Your task to perform on an android device: change the upload size in google photos Image 0: 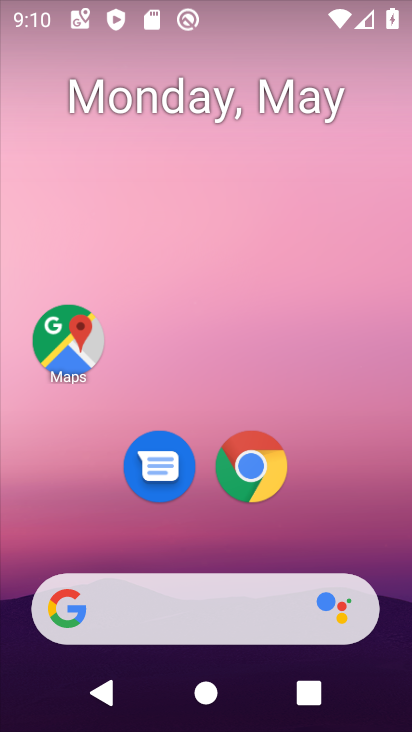
Step 0: drag from (337, 528) to (306, 90)
Your task to perform on an android device: change the upload size in google photos Image 1: 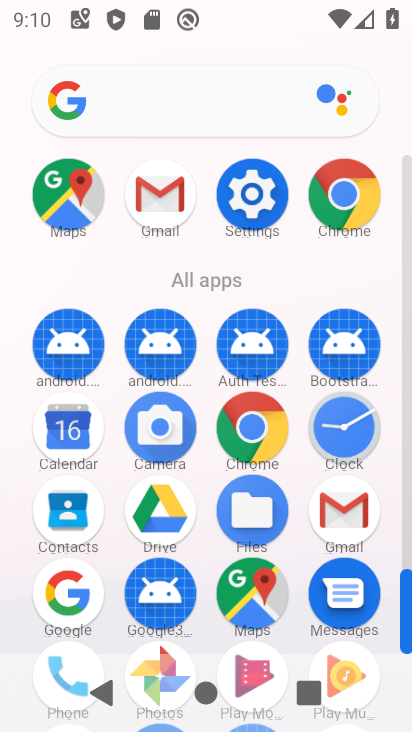
Step 1: drag from (294, 284) to (286, 45)
Your task to perform on an android device: change the upload size in google photos Image 2: 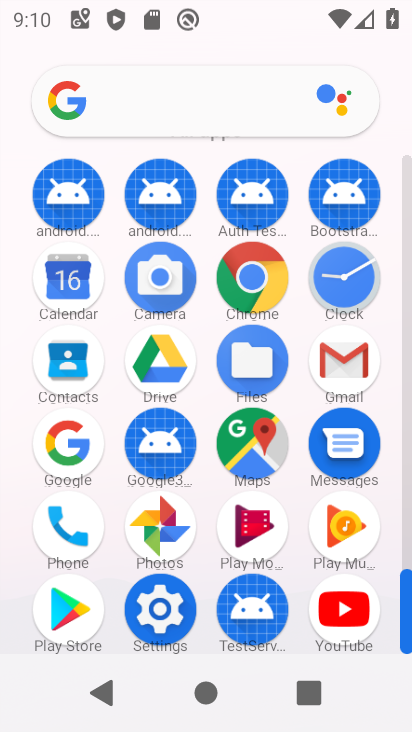
Step 2: click (164, 540)
Your task to perform on an android device: change the upload size in google photos Image 3: 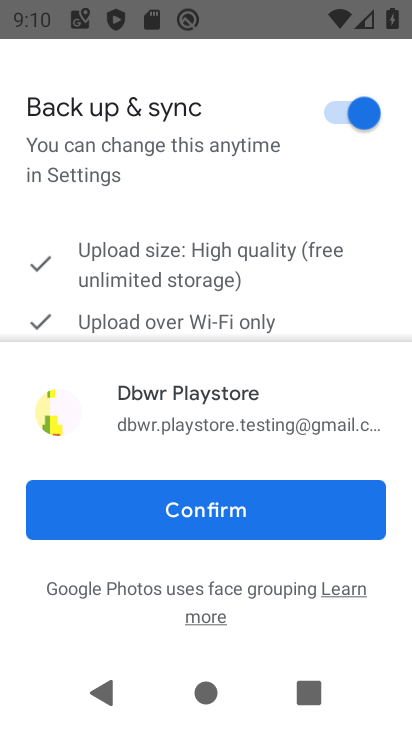
Step 3: click (306, 514)
Your task to perform on an android device: change the upload size in google photos Image 4: 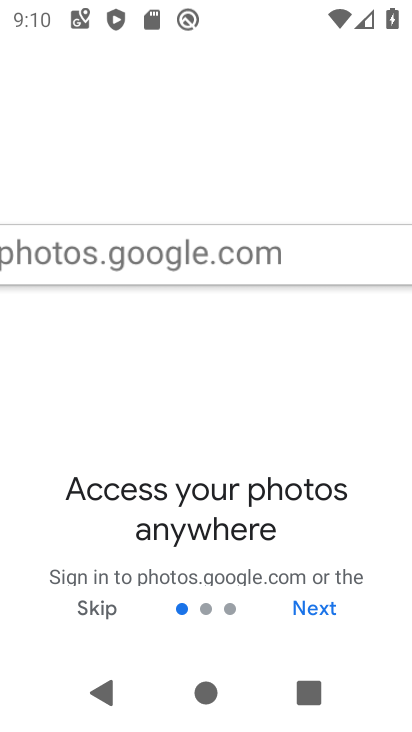
Step 4: click (301, 607)
Your task to perform on an android device: change the upload size in google photos Image 5: 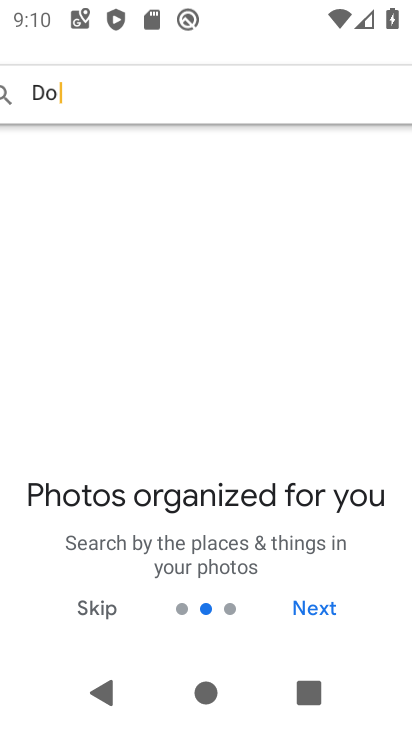
Step 5: click (301, 607)
Your task to perform on an android device: change the upload size in google photos Image 6: 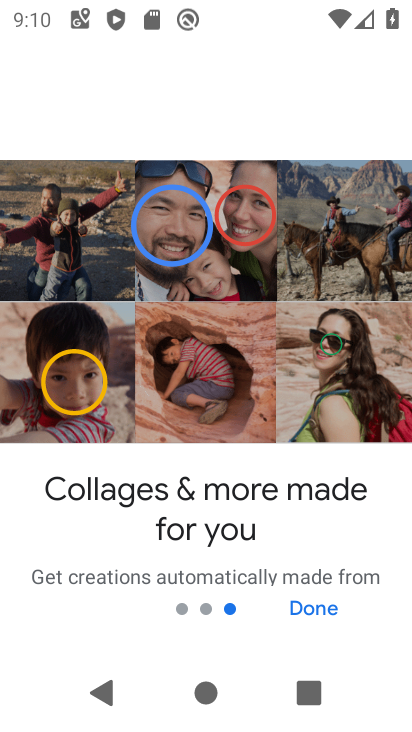
Step 6: click (301, 607)
Your task to perform on an android device: change the upload size in google photos Image 7: 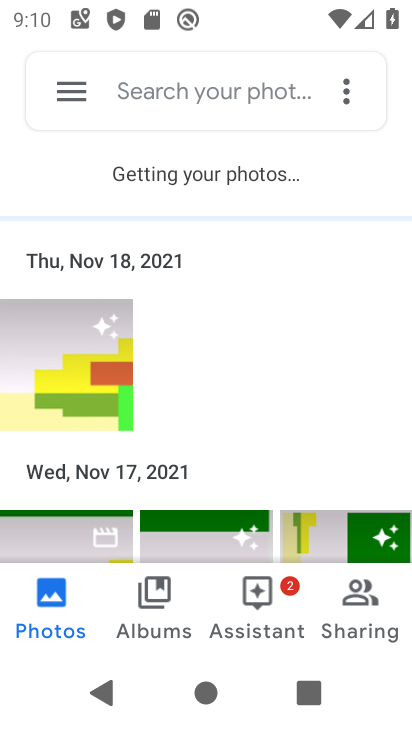
Step 7: click (349, 89)
Your task to perform on an android device: change the upload size in google photos Image 8: 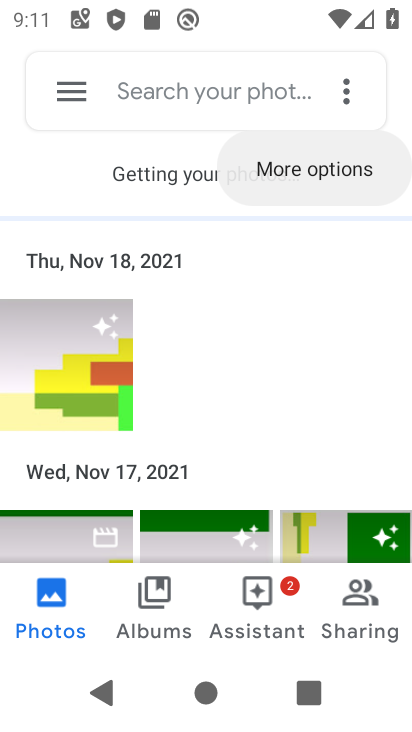
Step 8: click (349, 89)
Your task to perform on an android device: change the upload size in google photos Image 9: 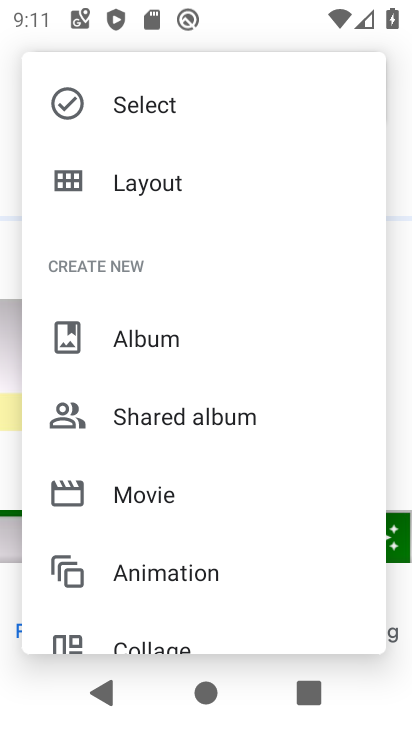
Step 9: click (397, 195)
Your task to perform on an android device: change the upload size in google photos Image 10: 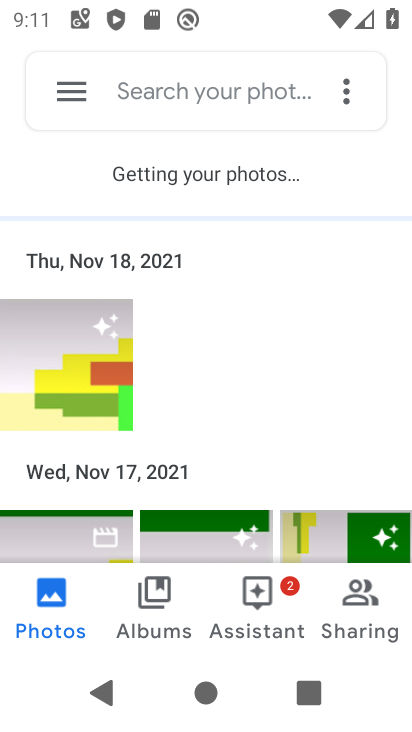
Step 10: click (63, 101)
Your task to perform on an android device: change the upload size in google photos Image 11: 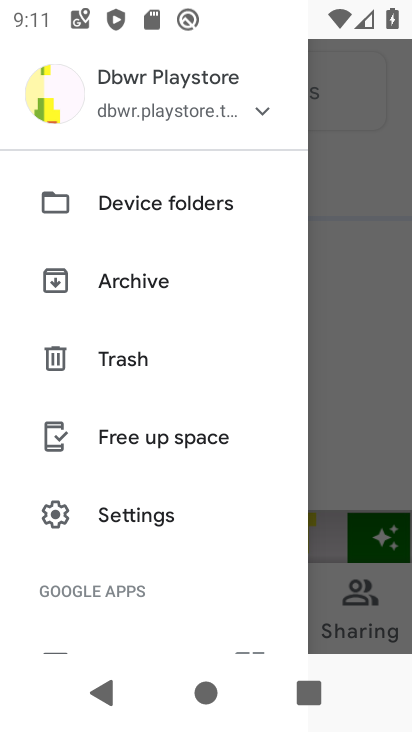
Step 11: click (145, 505)
Your task to perform on an android device: change the upload size in google photos Image 12: 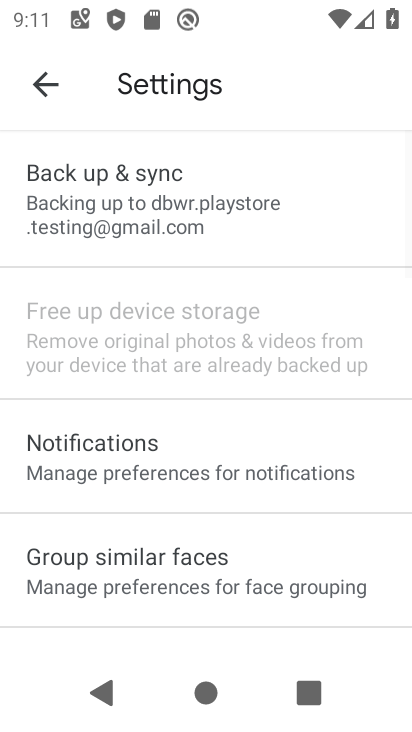
Step 12: click (103, 196)
Your task to perform on an android device: change the upload size in google photos Image 13: 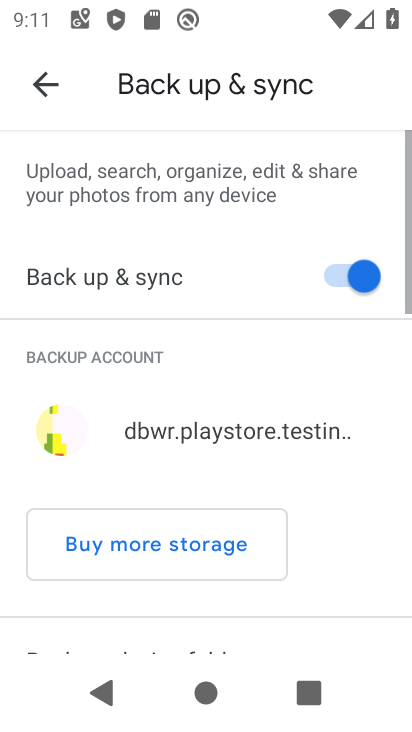
Step 13: drag from (213, 404) to (215, 178)
Your task to perform on an android device: change the upload size in google photos Image 14: 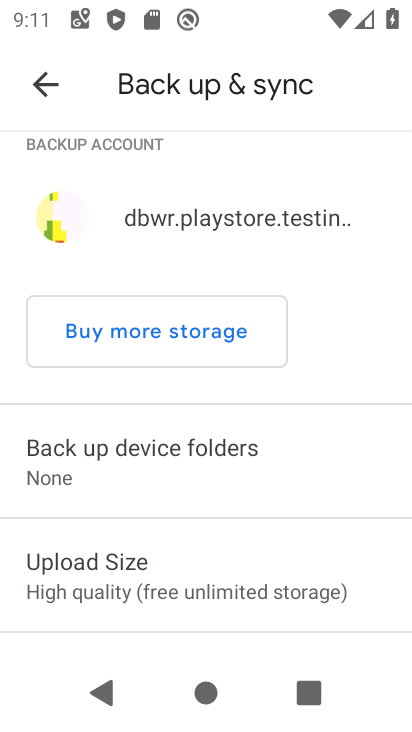
Step 14: click (81, 579)
Your task to perform on an android device: change the upload size in google photos Image 15: 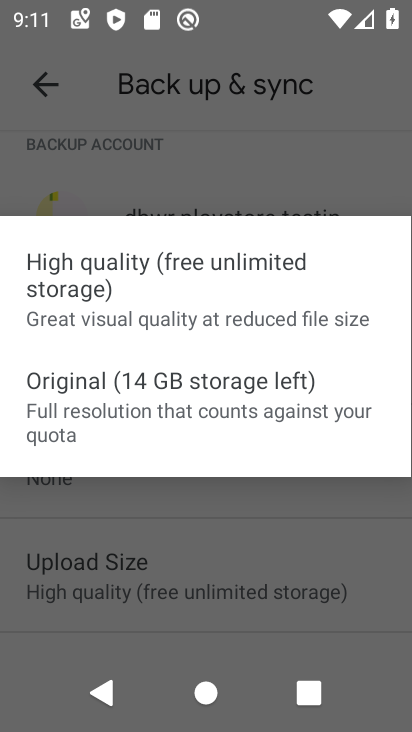
Step 15: click (79, 408)
Your task to perform on an android device: change the upload size in google photos Image 16: 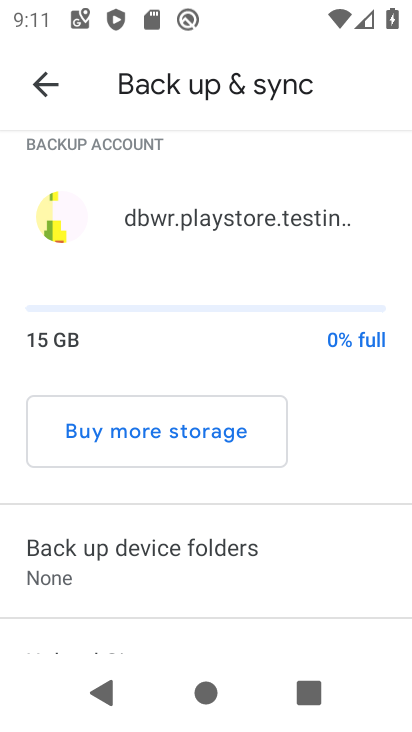
Step 16: task complete